Your task to perform on an android device: Show me popular games on the Play Store Image 0: 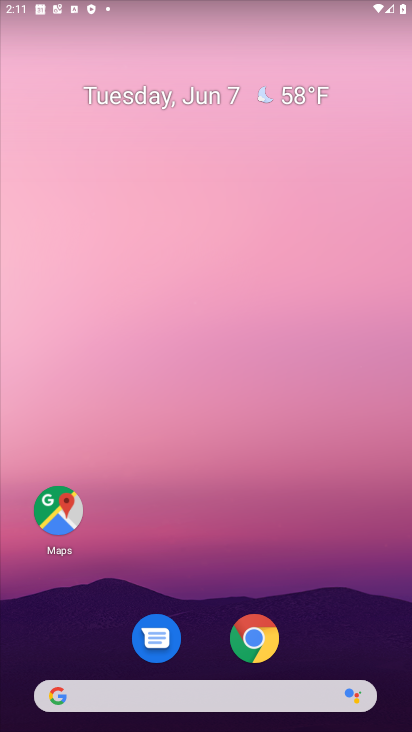
Step 0: drag from (110, 652) to (175, 241)
Your task to perform on an android device: Show me popular games on the Play Store Image 1: 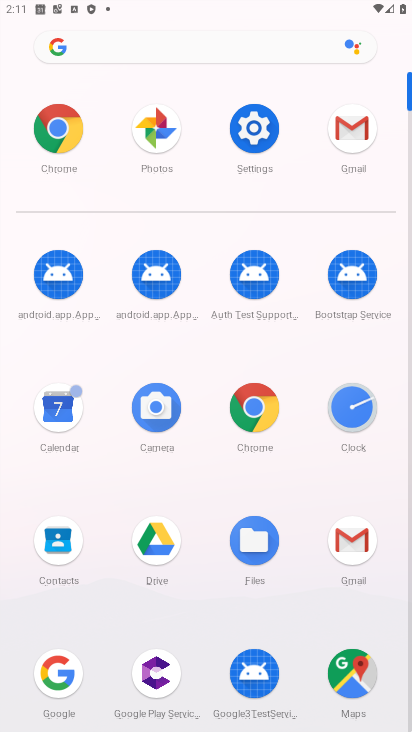
Step 1: drag from (91, 707) to (194, 375)
Your task to perform on an android device: Show me popular games on the Play Store Image 2: 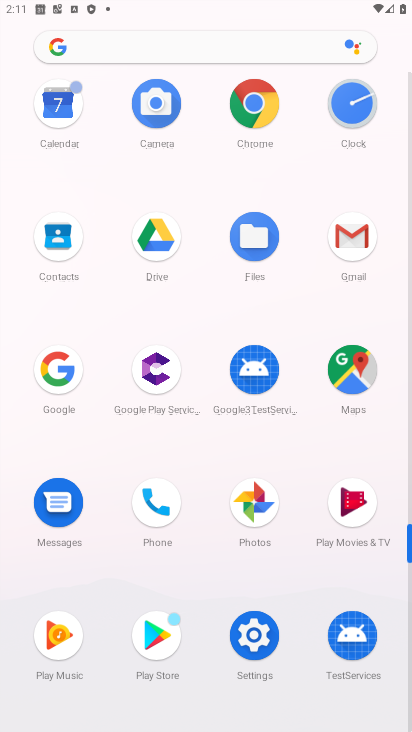
Step 2: click (154, 641)
Your task to perform on an android device: Show me popular games on the Play Store Image 3: 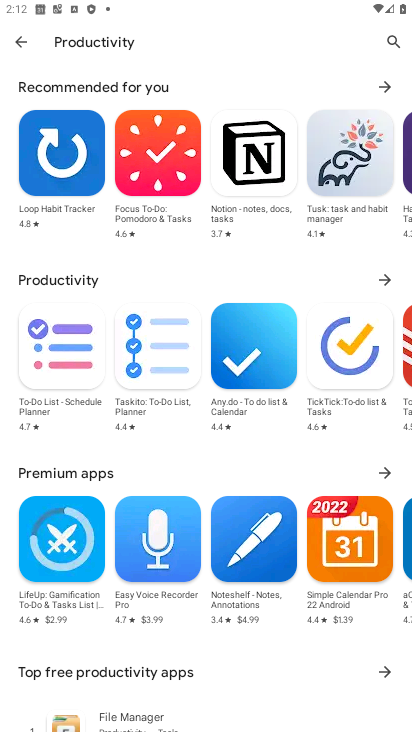
Step 3: click (19, 32)
Your task to perform on an android device: Show me popular games on the Play Store Image 4: 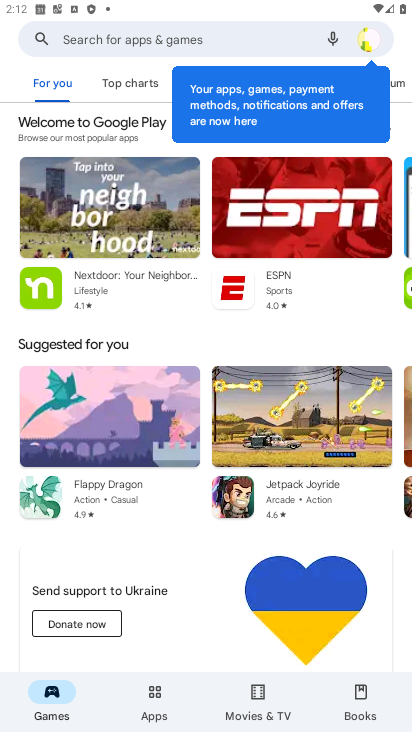
Step 4: click (45, 34)
Your task to perform on an android device: Show me popular games on the Play Store Image 5: 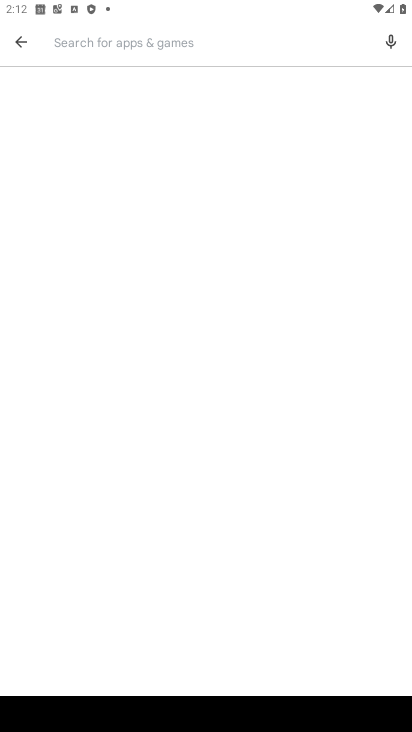
Step 5: type "popular games "
Your task to perform on an android device: Show me popular games on the Play Store Image 6: 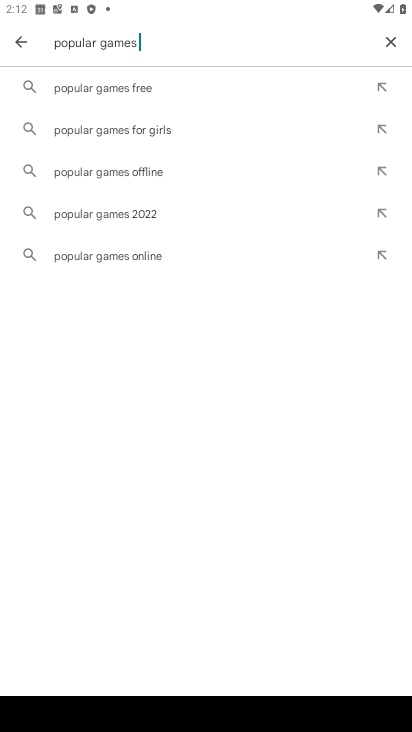
Step 6: click (105, 86)
Your task to perform on an android device: Show me popular games on the Play Store Image 7: 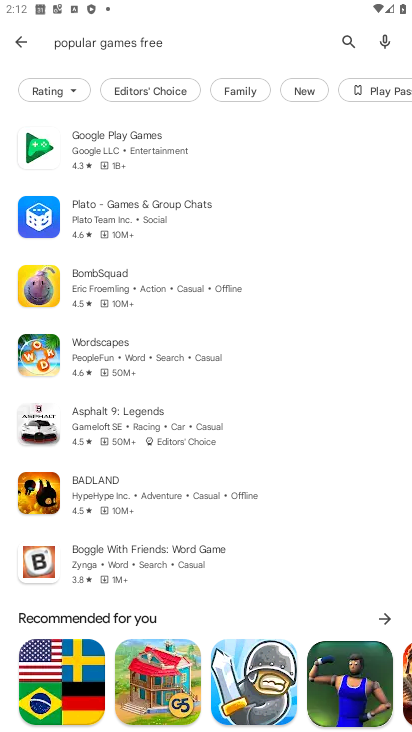
Step 7: task complete